Your task to perform on an android device: add a contact in the contacts app Image 0: 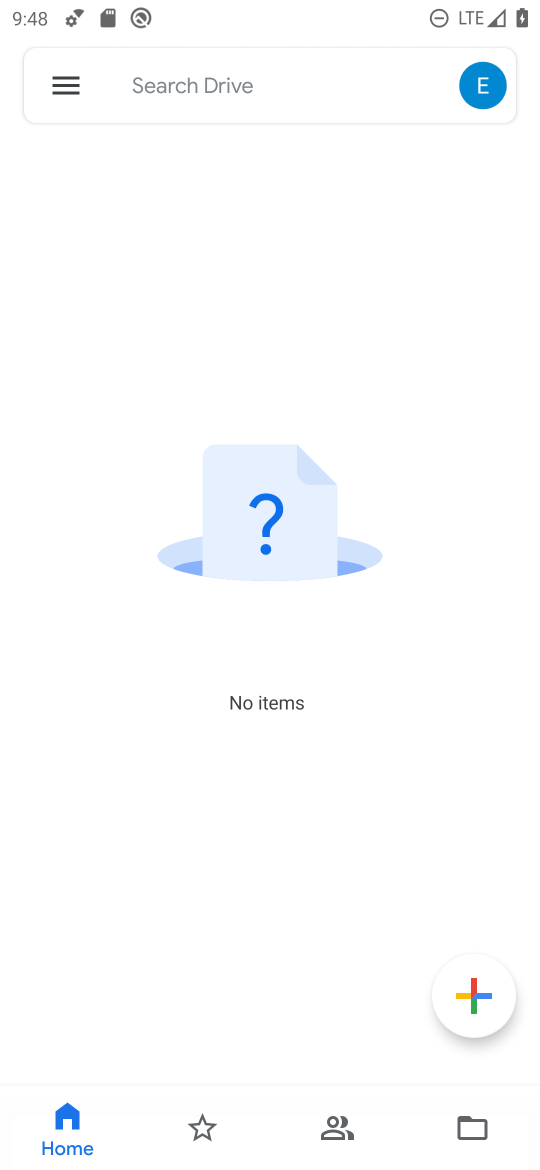
Step 0: press home button
Your task to perform on an android device: add a contact in the contacts app Image 1: 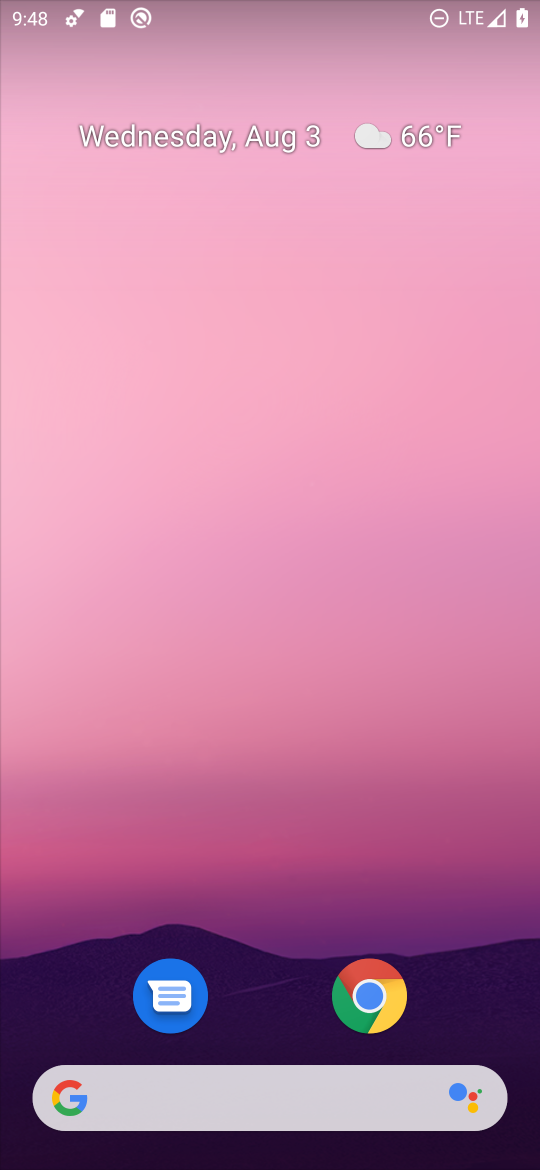
Step 1: drag from (257, 880) to (190, 0)
Your task to perform on an android device: add a contact in the contacts app Image 2: 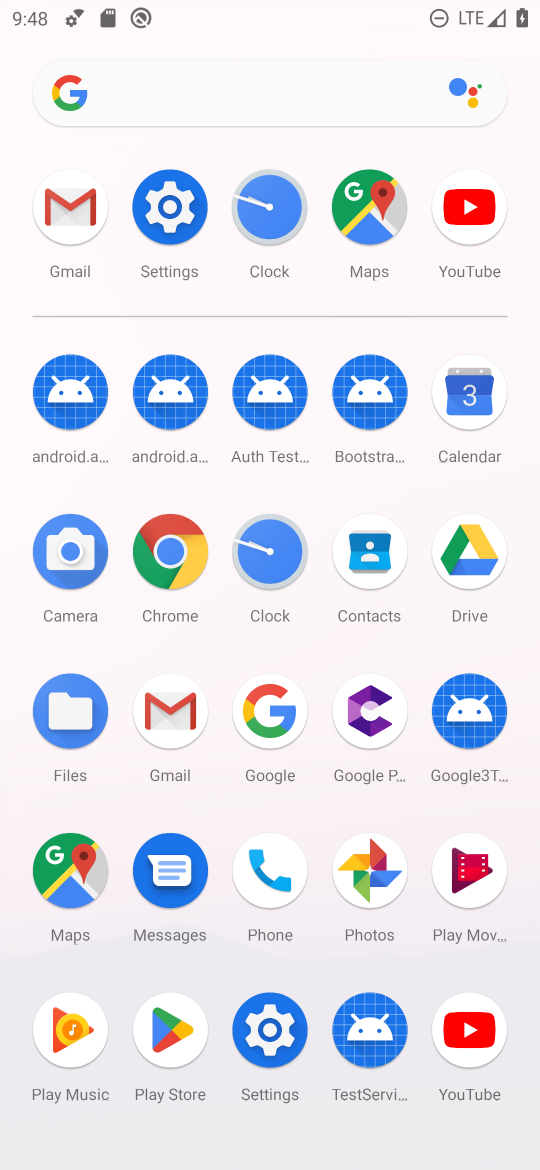
Step 2: click (387, 564)
Your task to perform on an android device: add a contact in the contacts app Image 3: 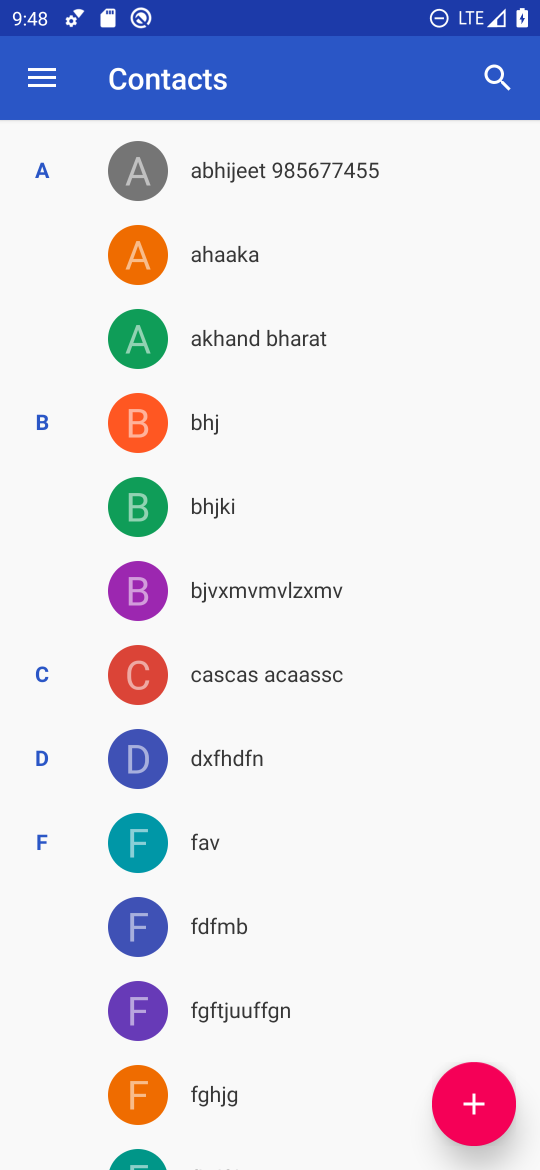
Step 3: drag from (347, 959) to (293, 188)
Your task to perform on an android device: add a contact in the contacts app Image 4: 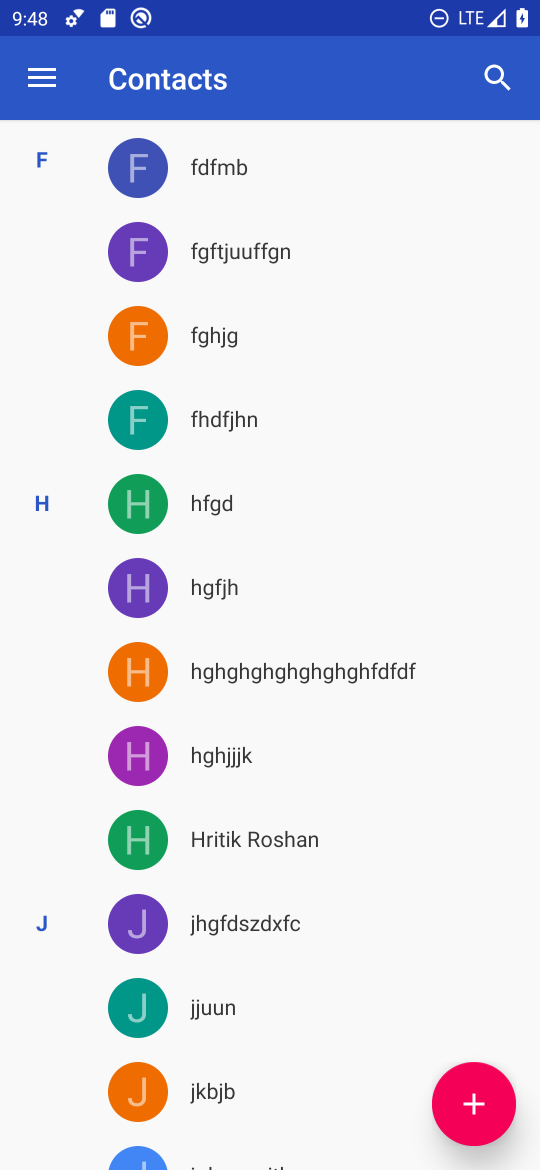
Step 4: drag from (306, 965) to (250, 139)
Your task to perform on an android device: add a contact in the contacts app Image 5: 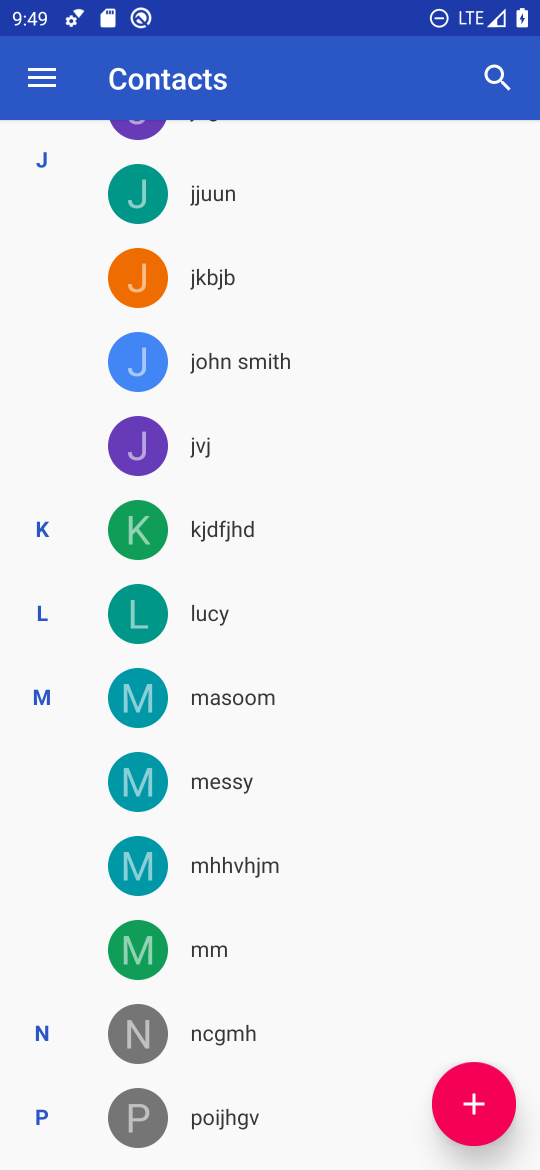
Step 5: click (475, 1102)
Your task to perform on an android device: add a contact in the contacts app Image 6: 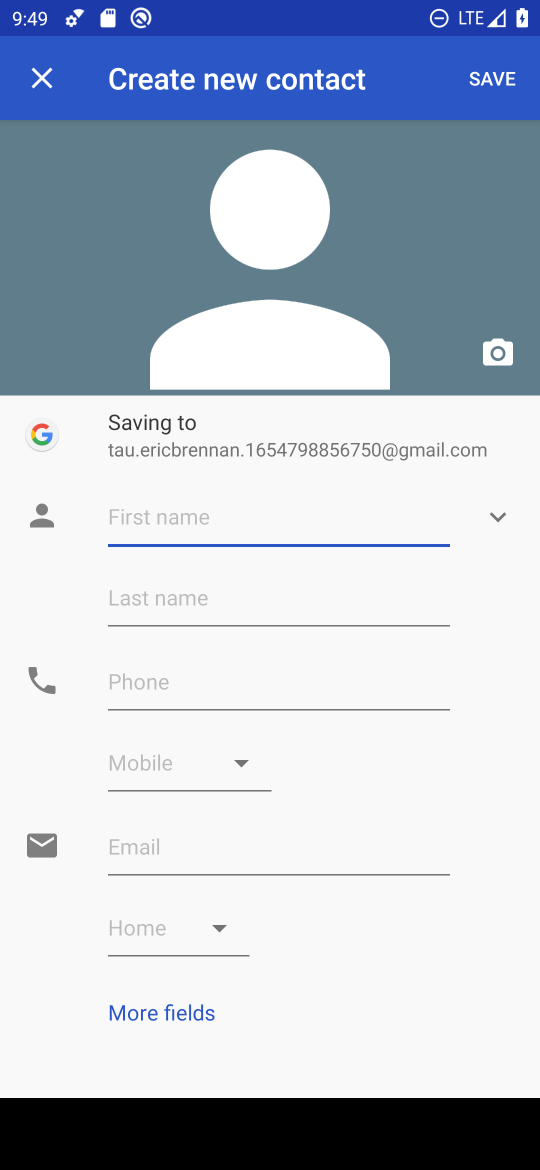
Step 6: type "Om"
Your task to perform on an android device: add a contact in the contacts app Image 7: 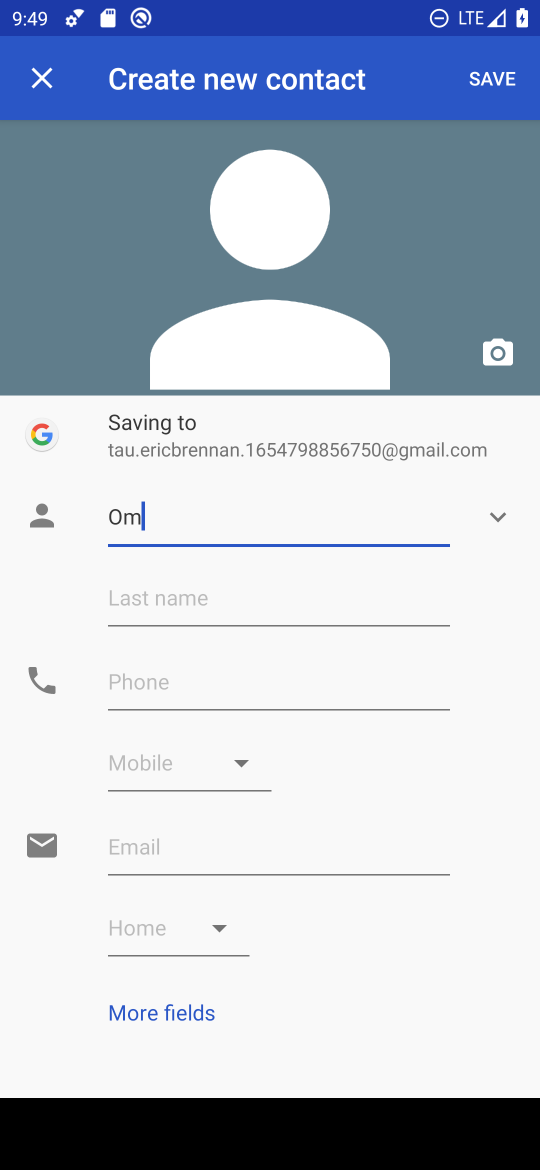
Step 7: click (322, 689)
Your task to perform on an android device: add a contact in the contacts app Image 8: 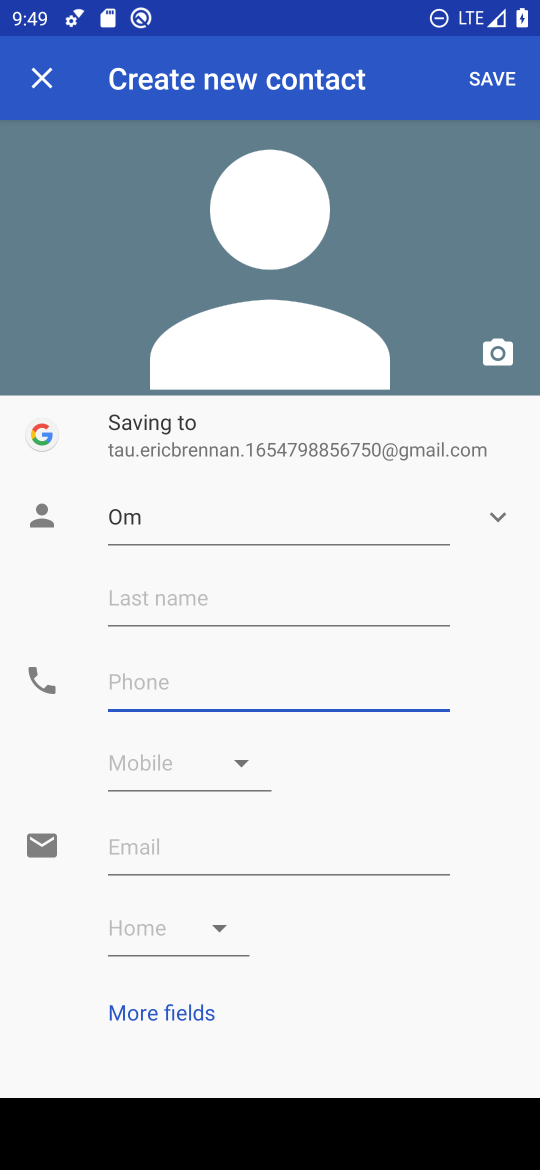
Step 8: type "+9111222000777"
Your task to perform on an android device: add a contact in the contacts app Image 9: 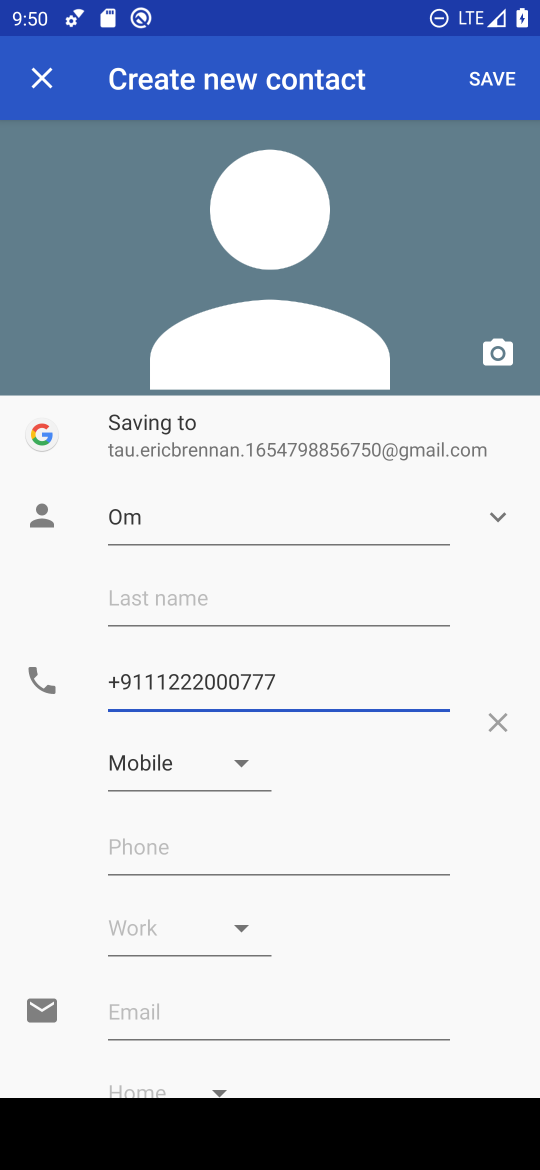
Step 9: click (493, 73)
Your task to perform on an android device: add a contact in the contacts app Image 10: 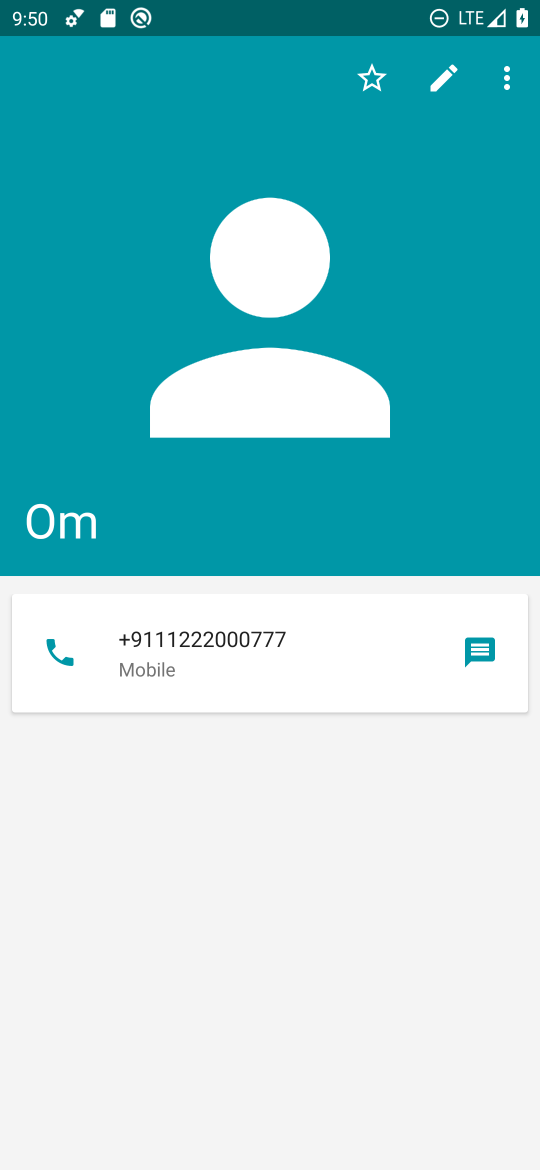
Step 10: task complete